Your task to perform on an android device: toggle show notifications on the lock screen Image 0: 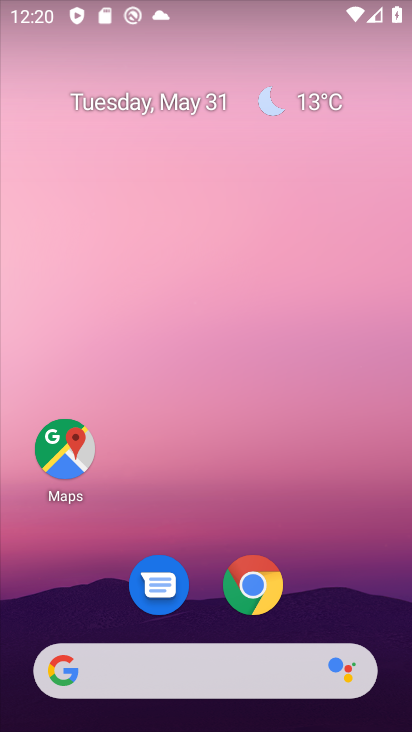
Step 0: drag from (214, 483) to (259, 20)
Your task to perform on an android device: toggle show notifications on the lock screen Image 1: 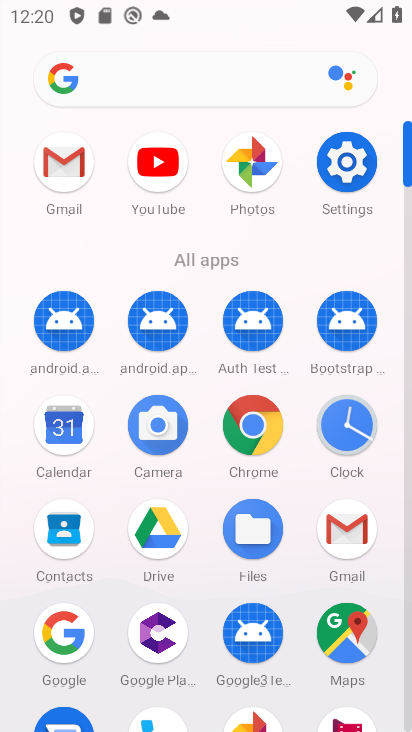
Step 1: click (357, 171)
Your task to perform on an android device: toggle show notifications on the lock screen Image 2: 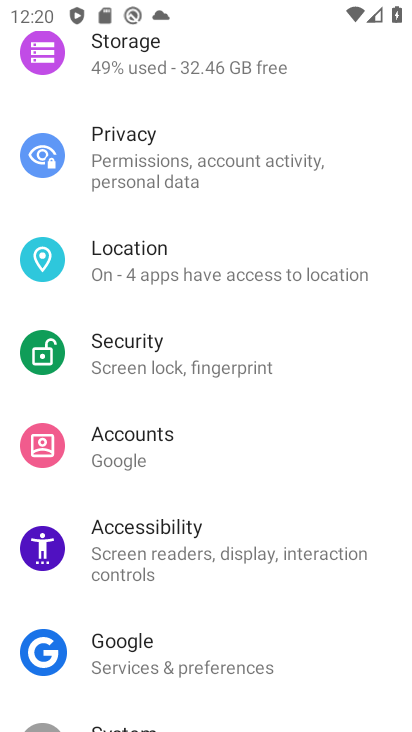
Step 2: drag from (260, 312) to (236, 656)
Your task to perform on an android device: toggle show notifications on the lock screen Image 3: 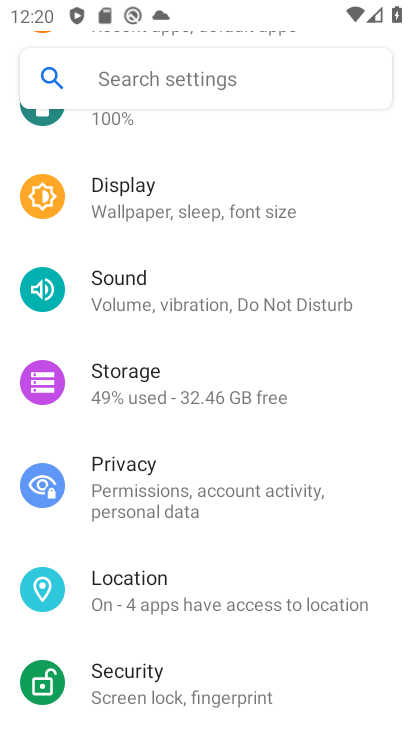
Step 3: drag from (255, 246) to (216, 604)
Your task to perform on an android device: toggle show notifications on the lock screen Image 4: 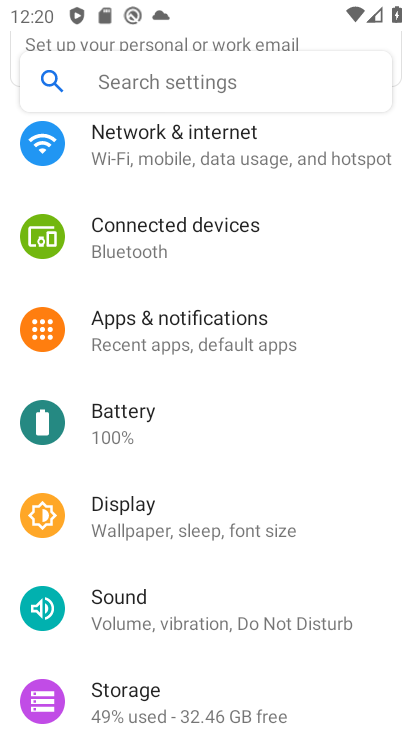
Step 4: click (229, 328)
Your task to perform on an android device: toggle show notifications on the lock screen Image 5: 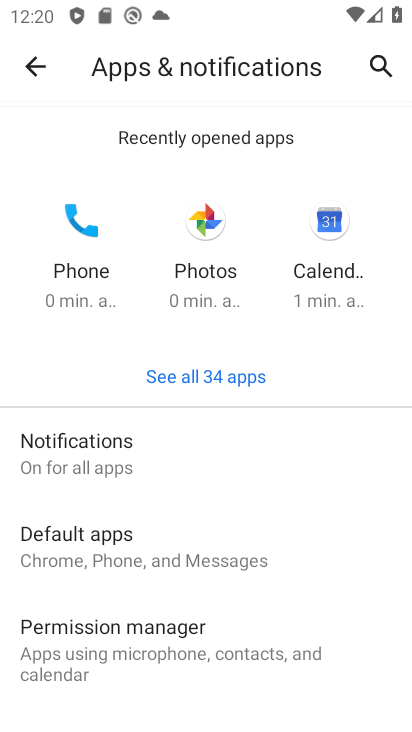
Step 5: click (220, 457)
Your task to perform on an android device: toggle show notifications on the lock screen Image 6: 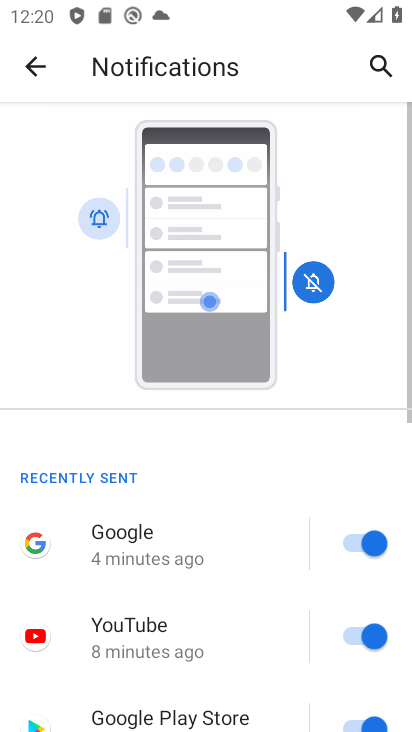
Step 6: drag from (263, 548) to (365, 65)
Your task to perform on an android device: toggle show notifications on the lock screen Image 7: 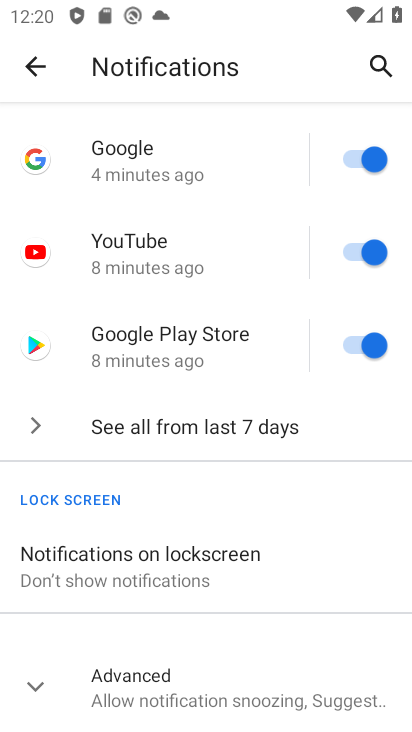
Step 7: click (263, 591)
Your task to perform on an android device: toggle show notifications on the lock screen Image 8: 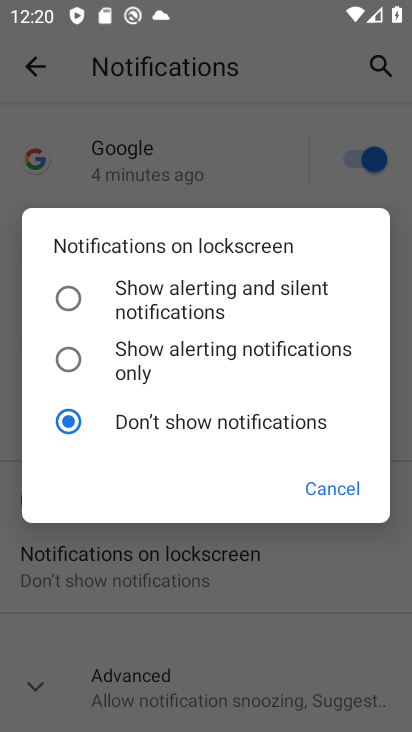
Step 8: click (83, 301)
Your task to perform on an android device: toggle show notifications on the lock screen Image 9: 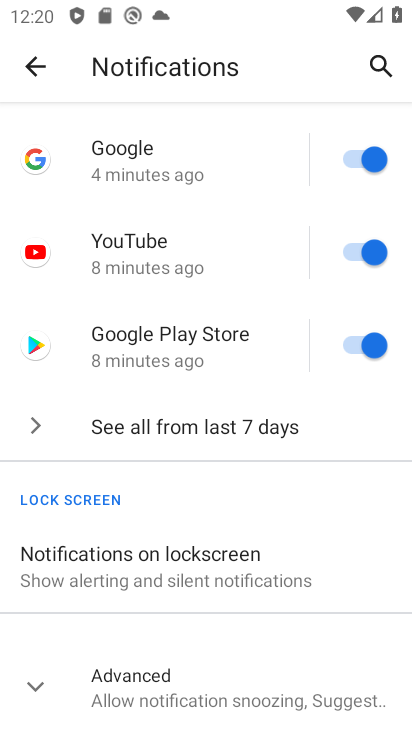
Step 9: task complete